Your task to perform on an android device: toggle wifi Image 0: 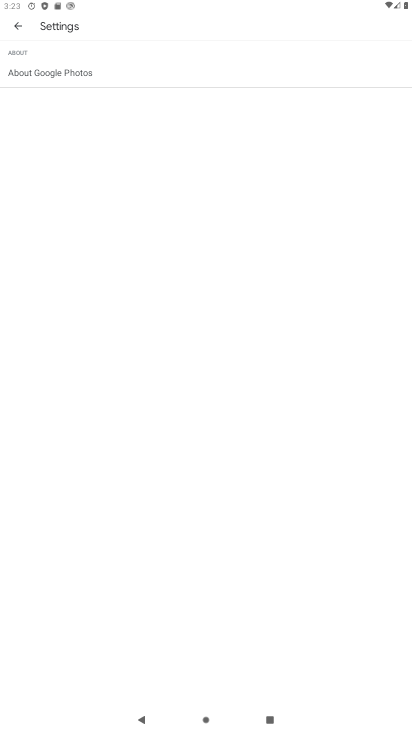
Step 0: press home button
Your task to perform on an android device: toggle wifi Image 1: 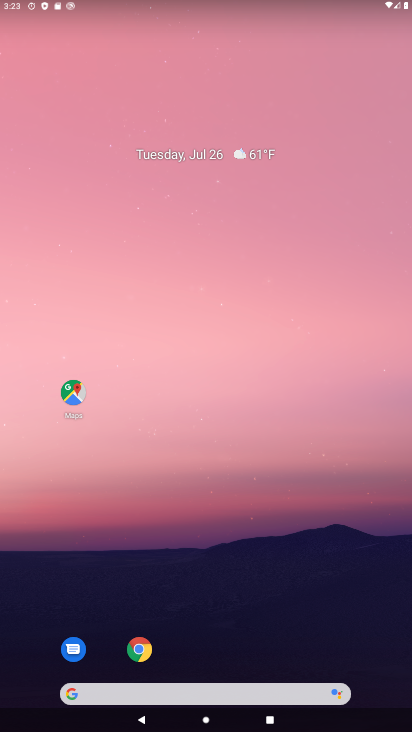
Step 1: click (203, 13)
Your task to perform on an android device: toggle wifi Image 2: 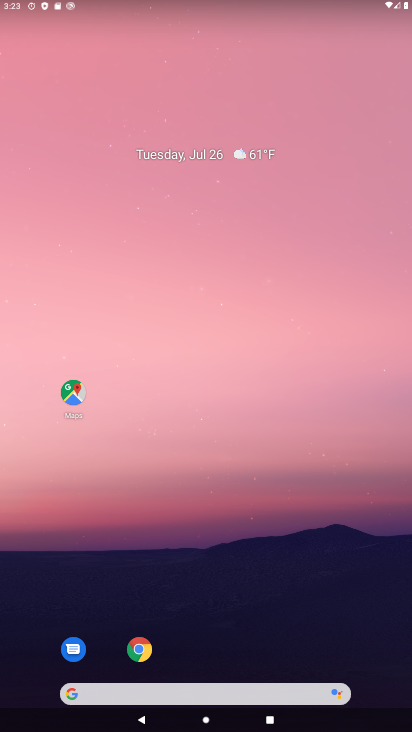
Step 2: drag from (25, 706) to (197, 69)
Your task to perform on an android device: toggle wifi Image 3: 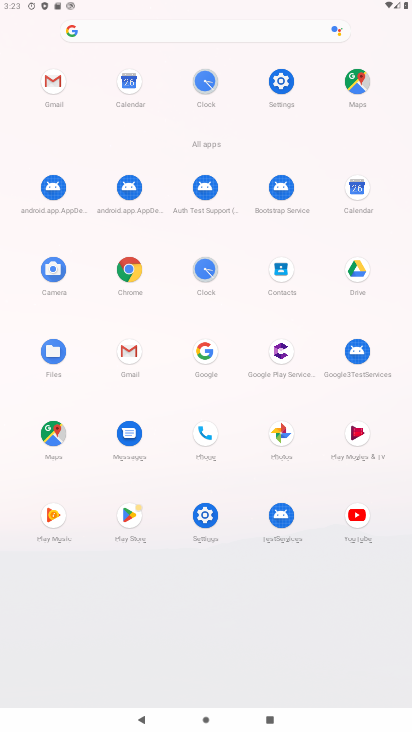
Step 3: click (210, 522)
Your task to perform on an android device: toggle wifi Image 4: 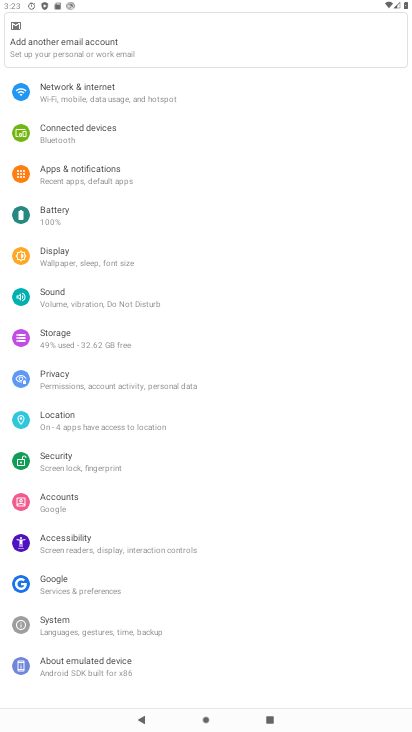
Step 4: click (91, 86)
Your task to perform on an android device: toggle wifi Image 5: 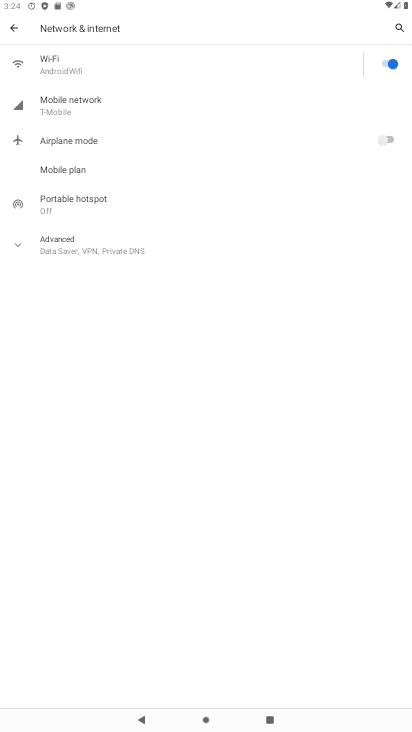
Step 5: task complete